Your task to perform on an android device: Go to Android settings Image 0: 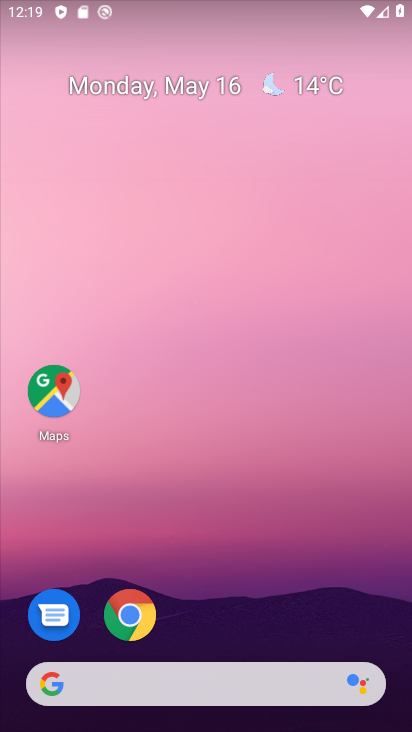
Step 0: drag from (344, 650) to (353, 193)
Your task to perform on an android device: Go to Android settings Image 1: 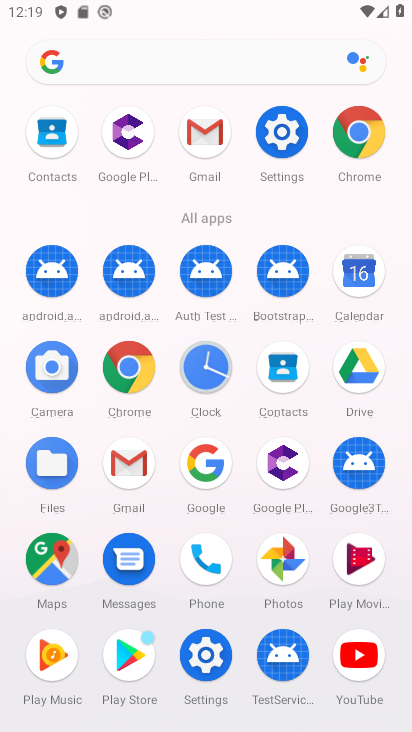
Step 1: click (206, 663)
Your task to perform on an android device: Go to Android settings Image 2: 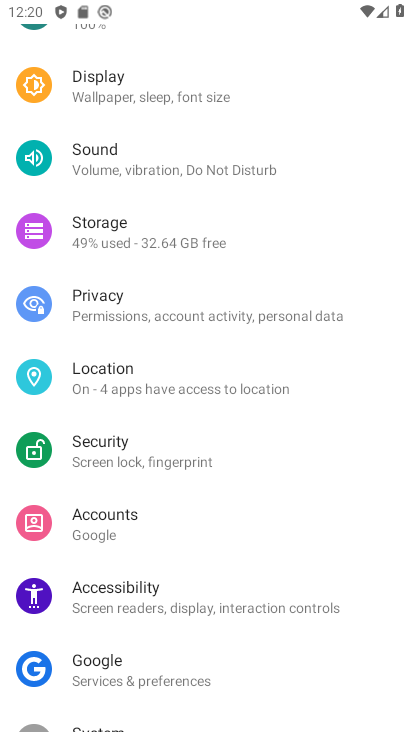
Step 2: drag from (227, 645) to (239, 259)
Your task to perform on an android device: Go to Android settings Image 3: 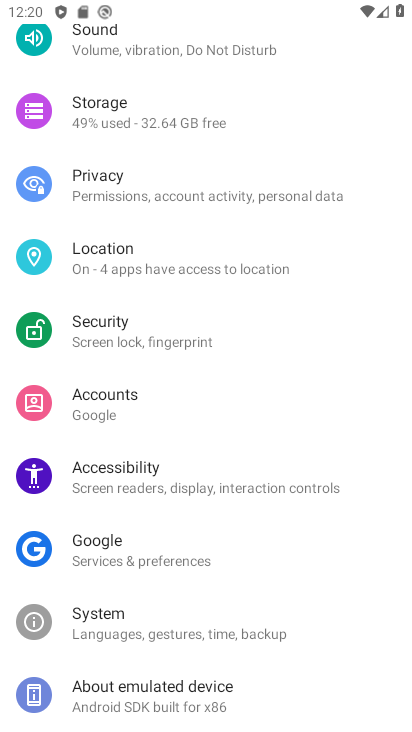
Step 3: click (190, 694)
Your task to perform on an android device: Go to Android settings Image 4: 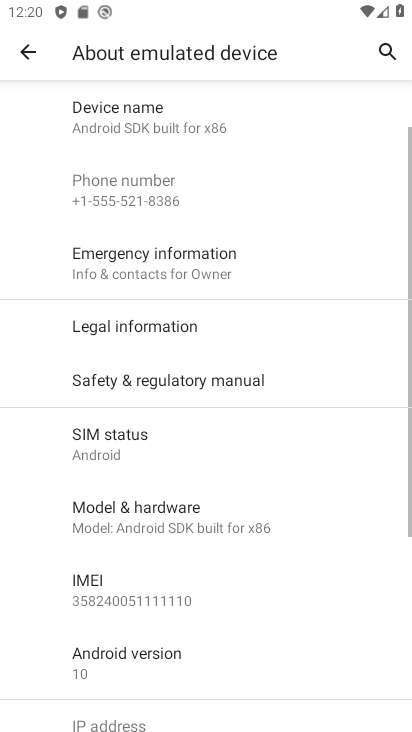
Step 4: task complete